Your task to perform on an android device: turn notification dots on Image 0: 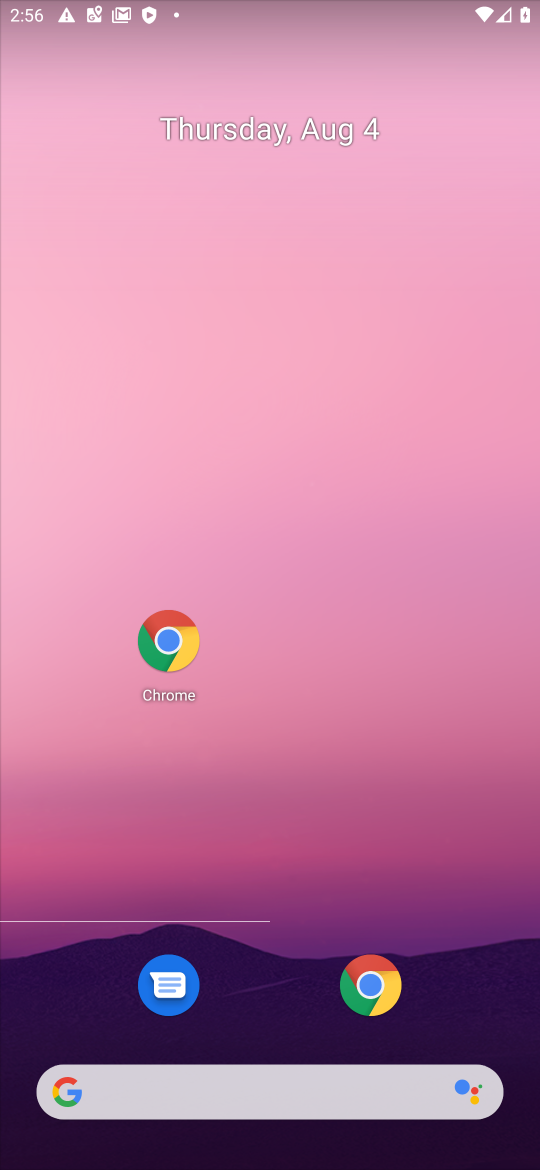
Step 0: drag from (344, 2) to (496, 487)
Your task to perform on an android device: turn notification dots on Image 1: 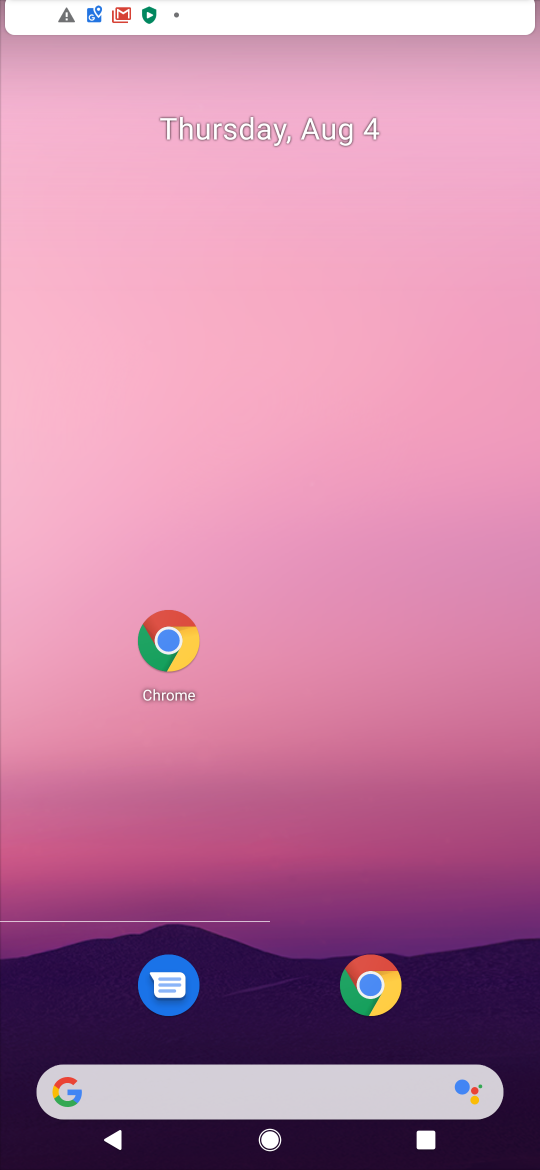
Step 1: drag from (419, 999) to (167, 197)
Your task to perform on an android device: turn notification dots on Image 2: 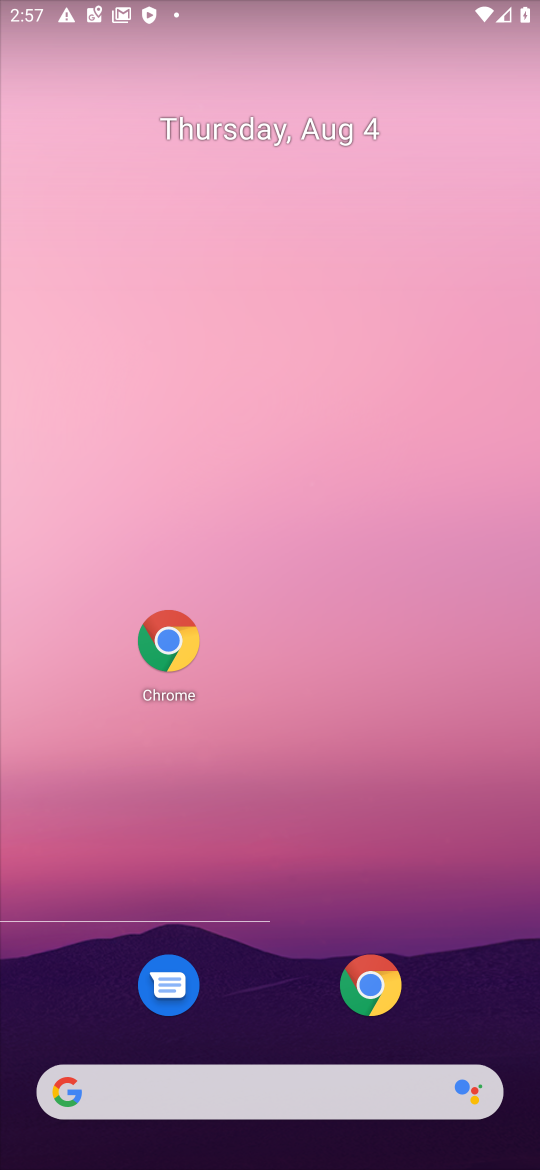
Step 2: drag from (274, 1050) to (214, 224)
Your task to perform on an android device: turn notification dots on Image 3: 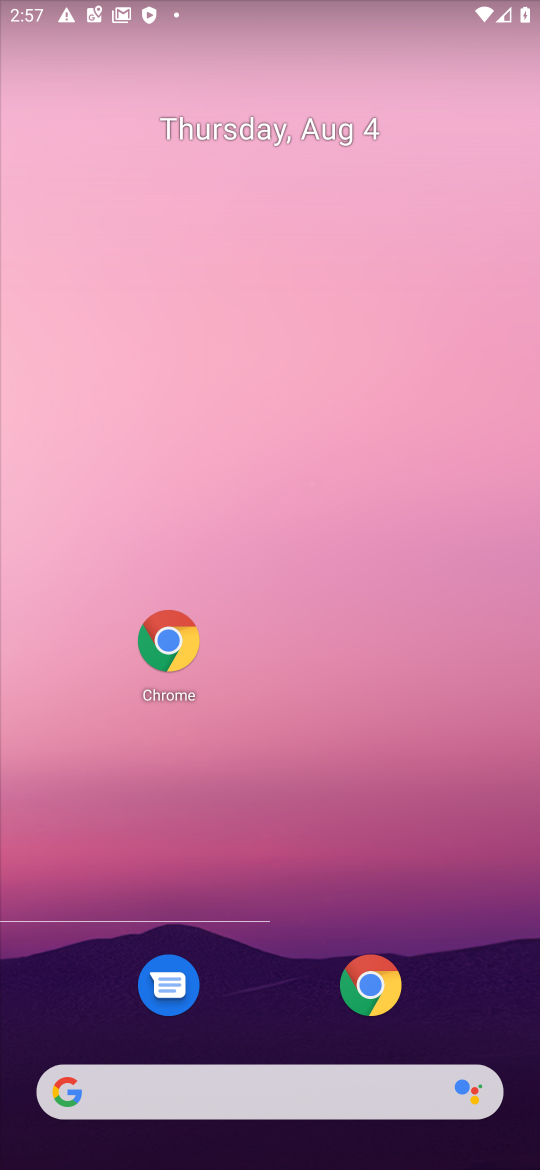
Step 3: drag from (213, 763) to (243, 343)
Your task to perform on an android device: turn notification dots on Image 4: 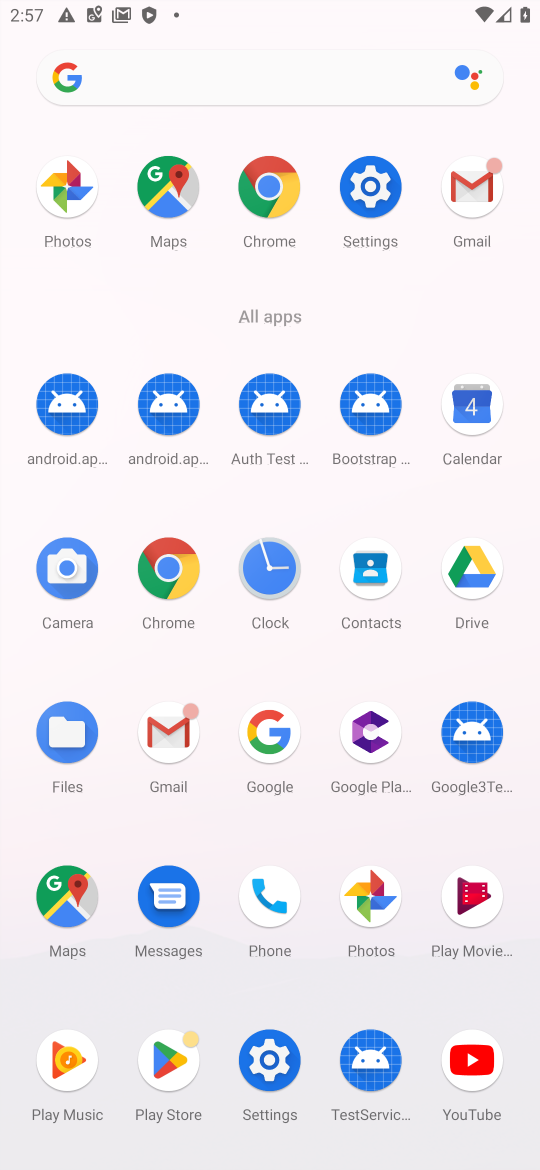
Step 4: click (355, 194)
Your task to perform on an android device: turn notification dots on Image 5: 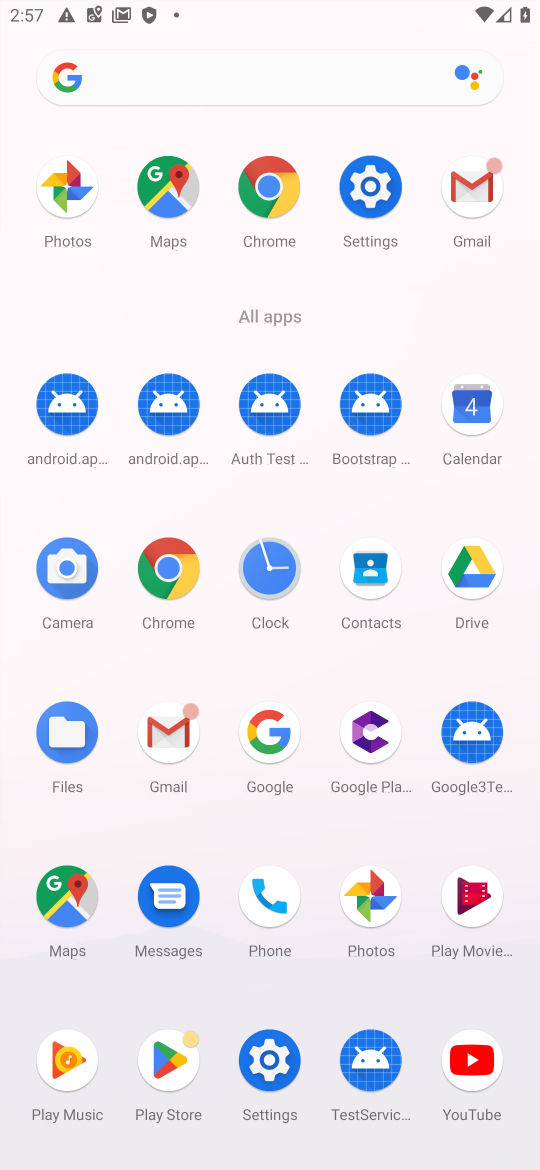
Step 5: click (354, 199)
Your task to perform on an android device: turn notification dots on Image 6: 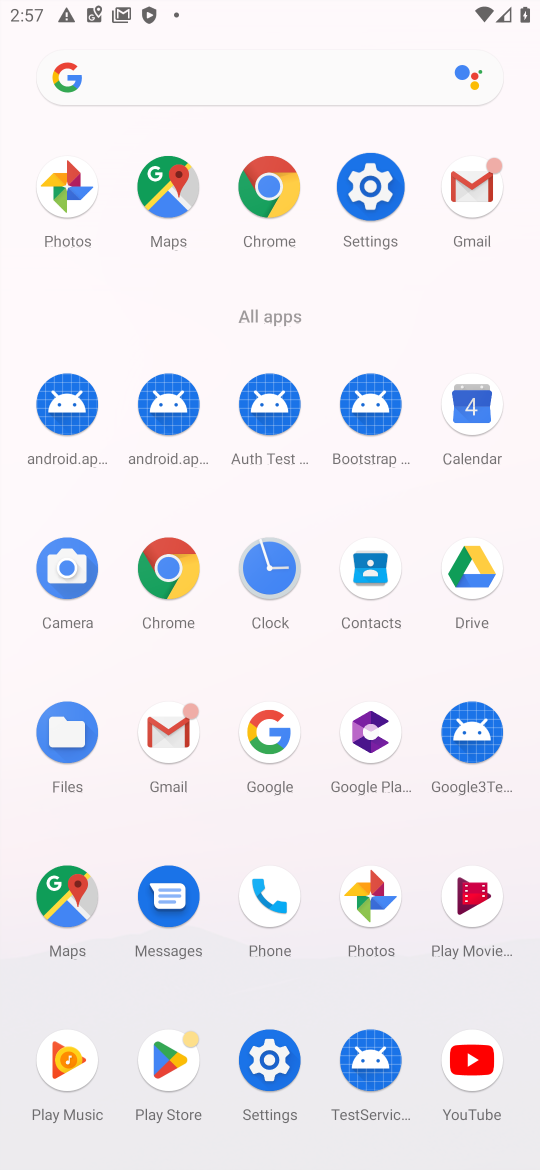
Step 6: click (354, 199)
Your task to perform on an android device: turn notification dots on Image 7: 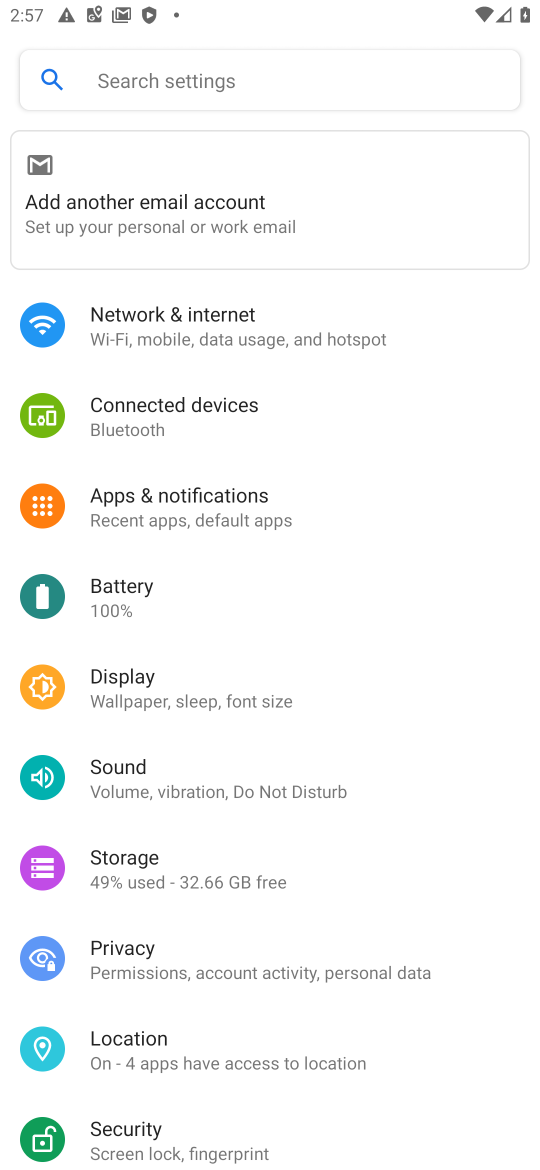
Step 7: click (154, 505)
Your task to perform on an android device: turn notification dots on Image 8: 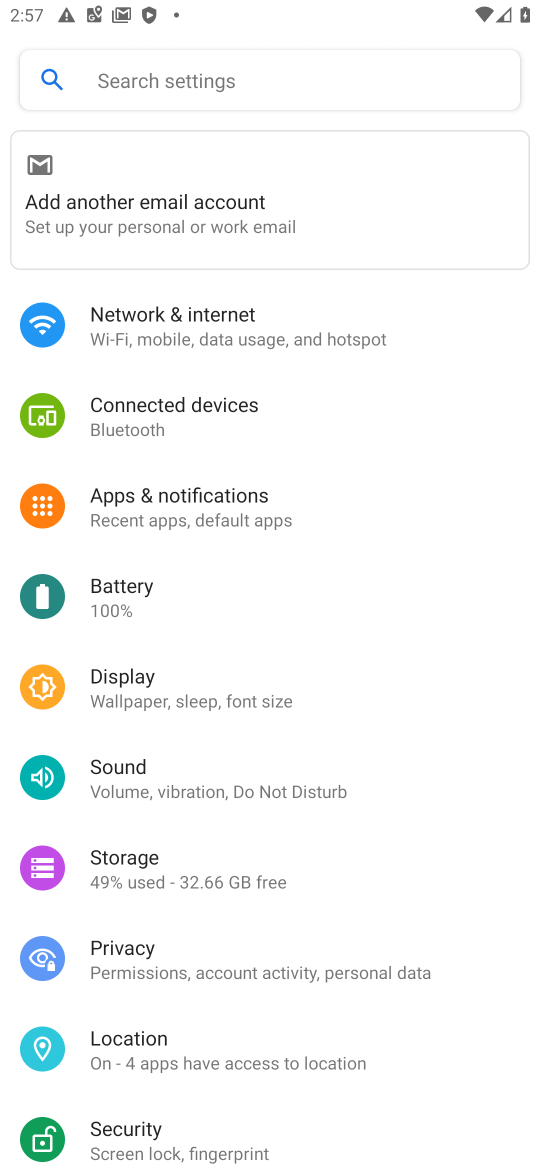
Step 8: click (153, 504)
Your task to perform on an android device: turn notification dots on Image 9: 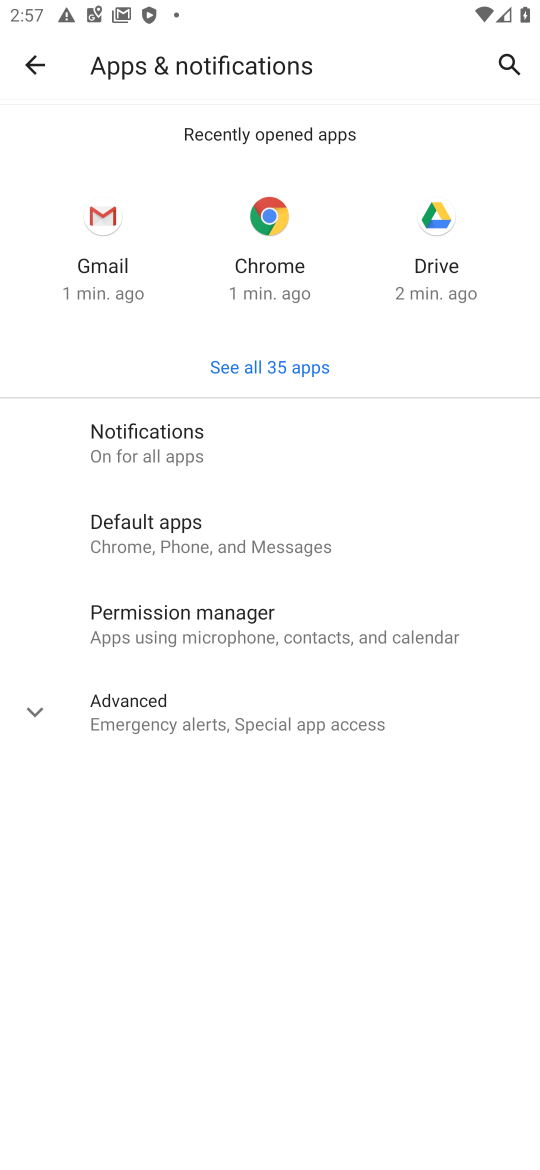
Step 9: click (149, 444)
Your task to perform on an android device: turn notification dots on Image 10: 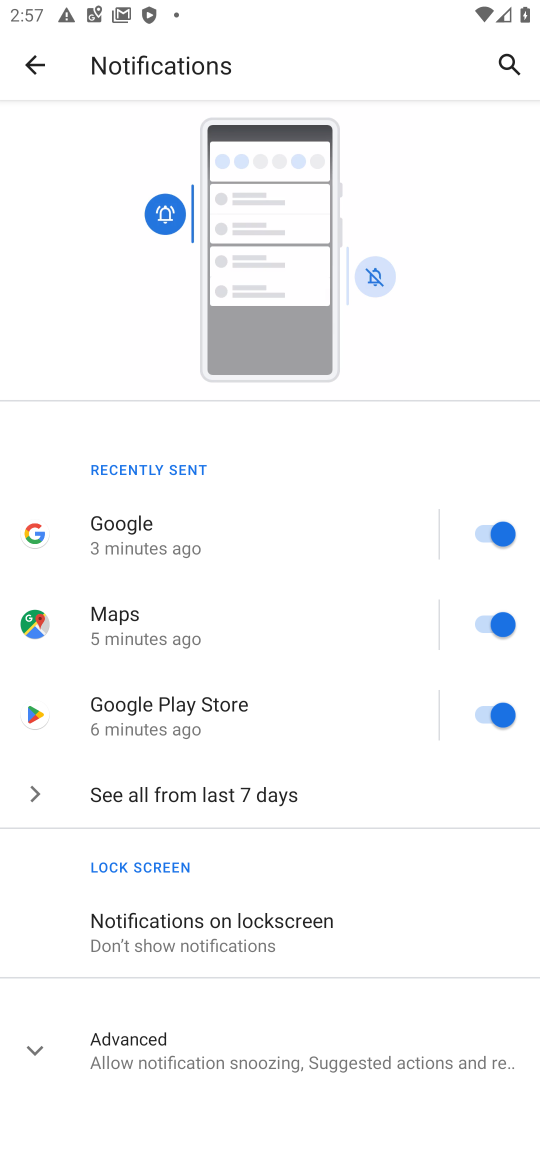
Step 10: click (144, 1046)
Your task to perform on an android device: turn notification dots on Image 11: 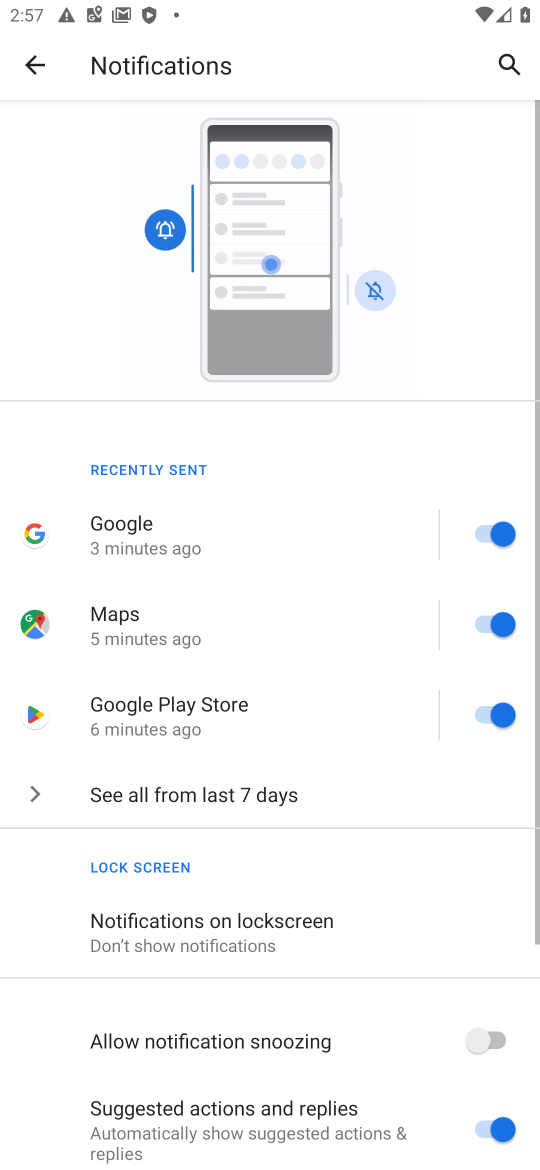
Step 11: drag from (300, 945) to (255, 635)
Your task to perform on an android device: turn notification dots on Image 12: 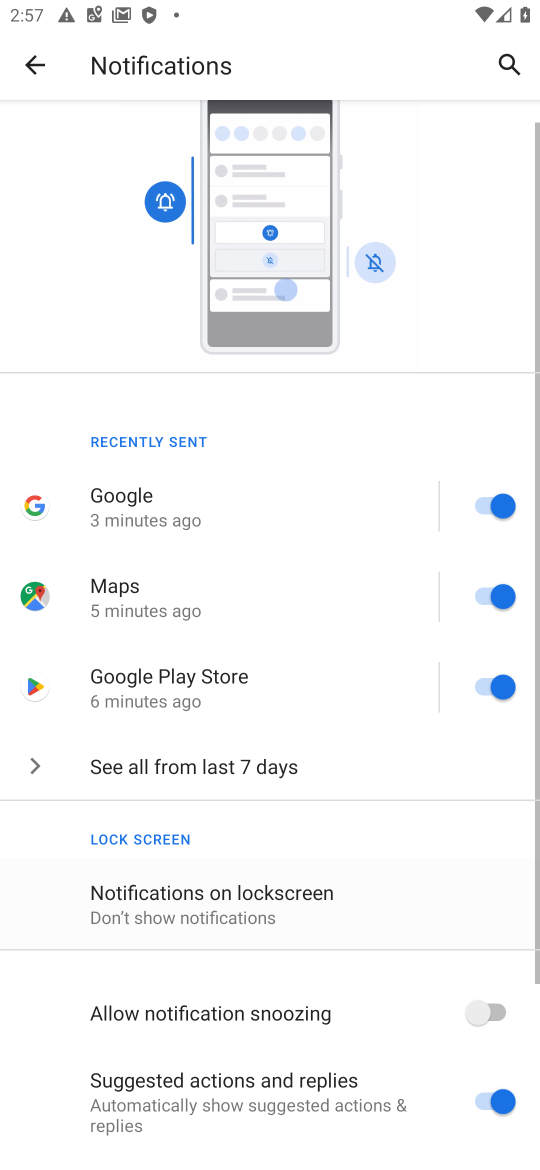
Step 12: click (209, 595)
Your task to perform on an android device: turn notification dots on Image 13: 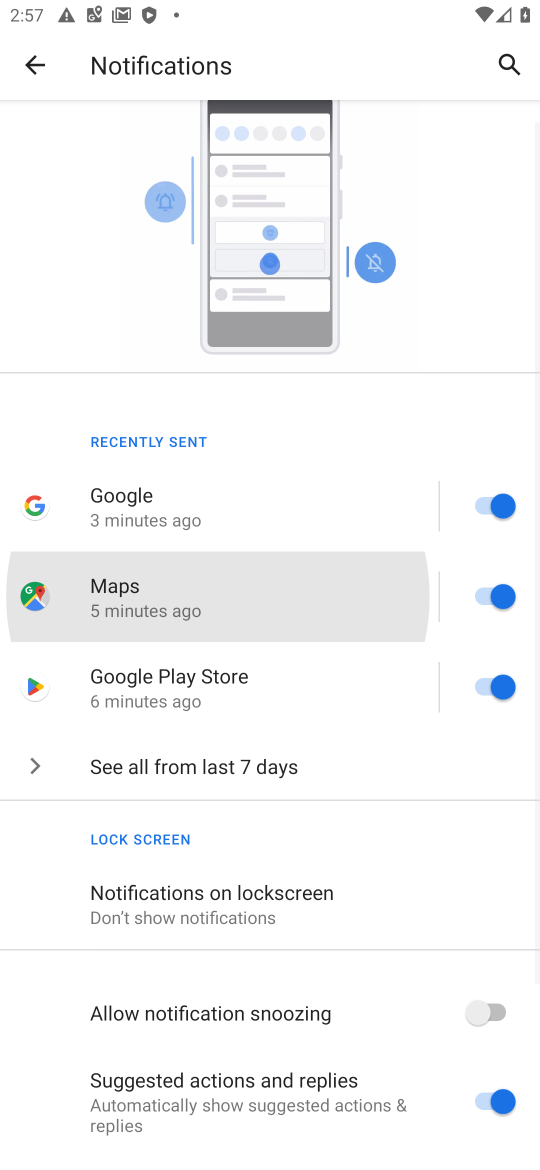
Step 13: drag from (303, 873) to (255, 635)
Your task to perform on an android device: turn notification dots on Image 14: 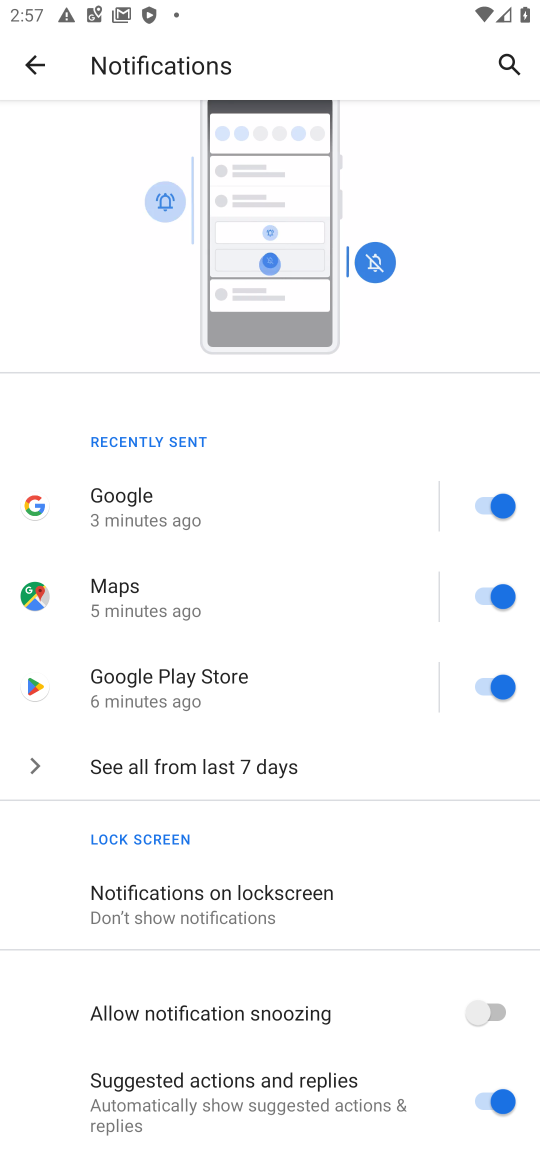
Step 14: drag from (302, 873) to (302, 611)
Your task to perform on an android device: turn notification dots on Image 15: 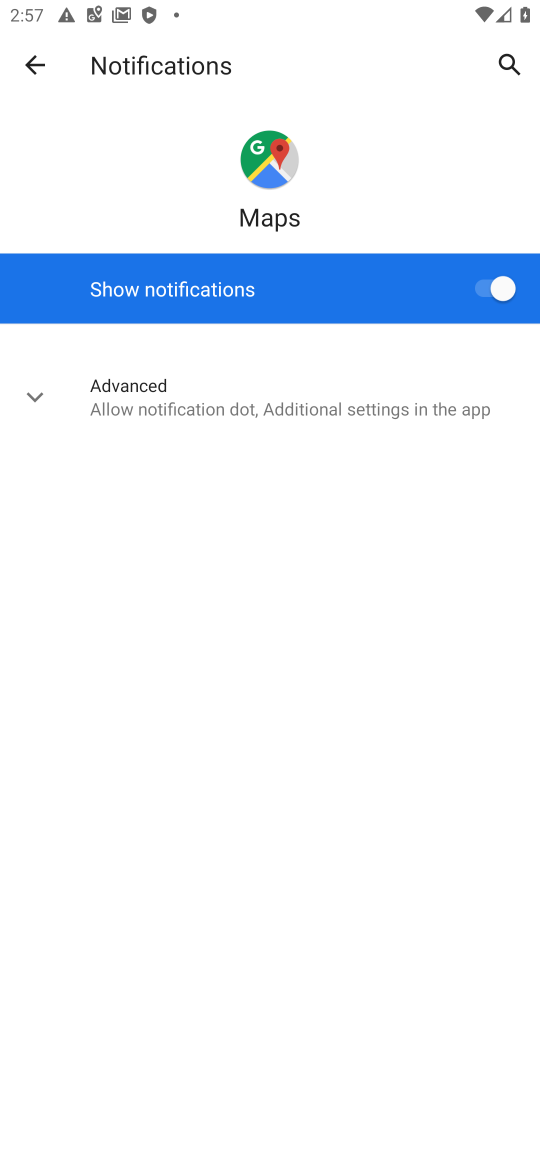
Step 15: drag from (301, 1019) to (260, 770)
Your task to perform on an android device: turn notification dots on Image 16: 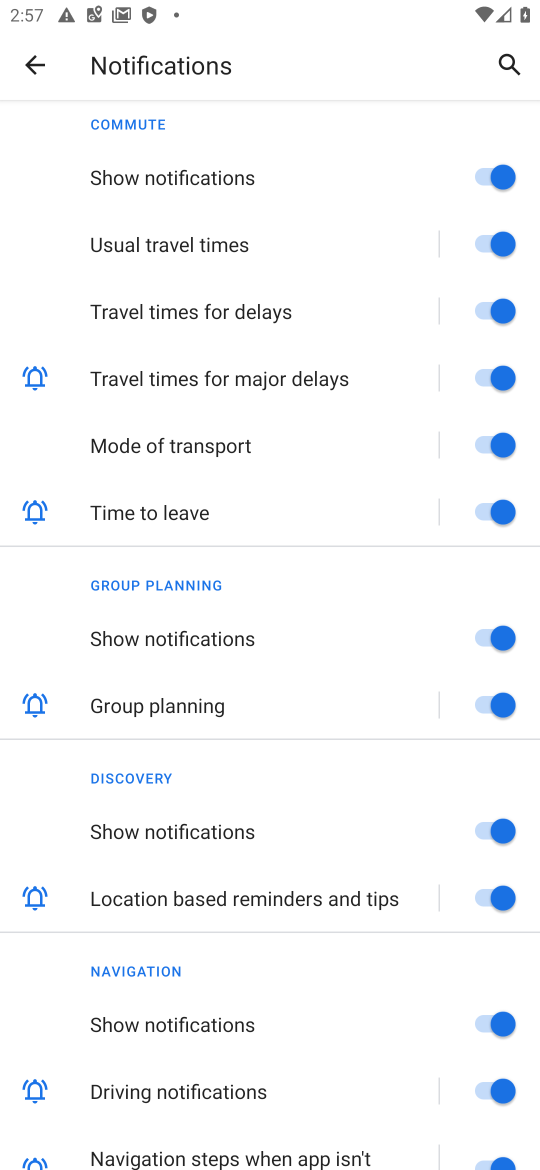
Step 16: click (32, 66)
Your task to perform on an android device: turn notification dots on Image 17: 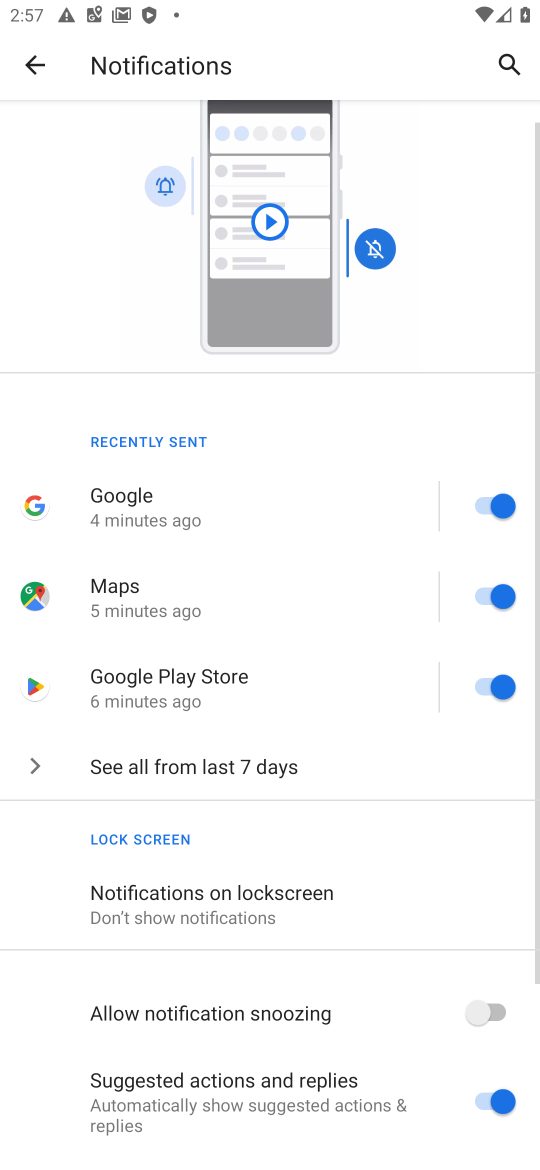
Step 17: drag from (319, 964) to (211, 595)
Your task to perform on an android device: turn notification dots on Image 18: 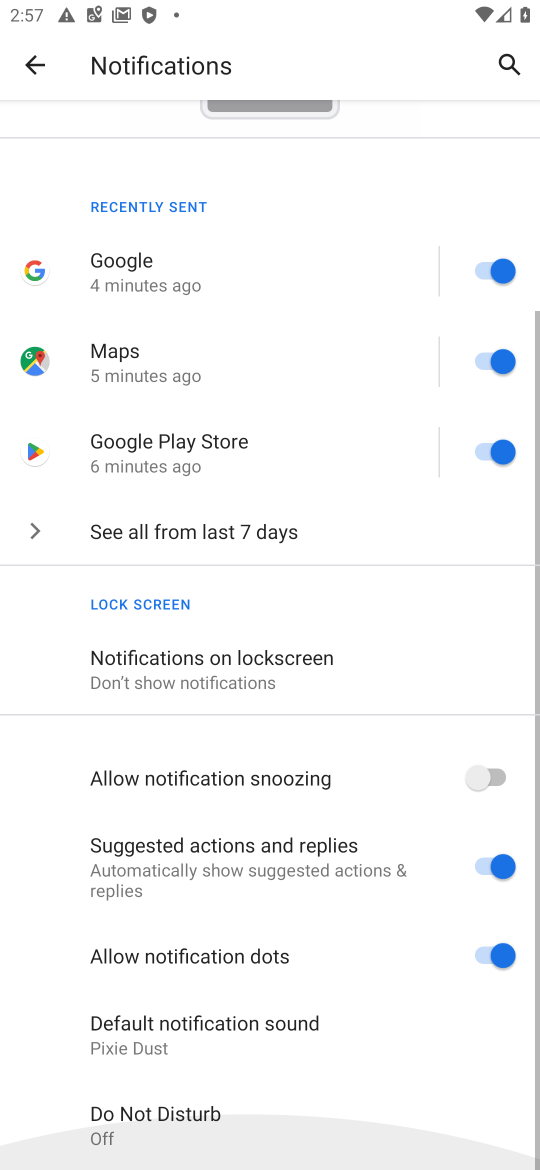
Step 18: drag from (353, 807) to (357, 595)
Your task to perform on an android device: turn notification dots on Image 19: 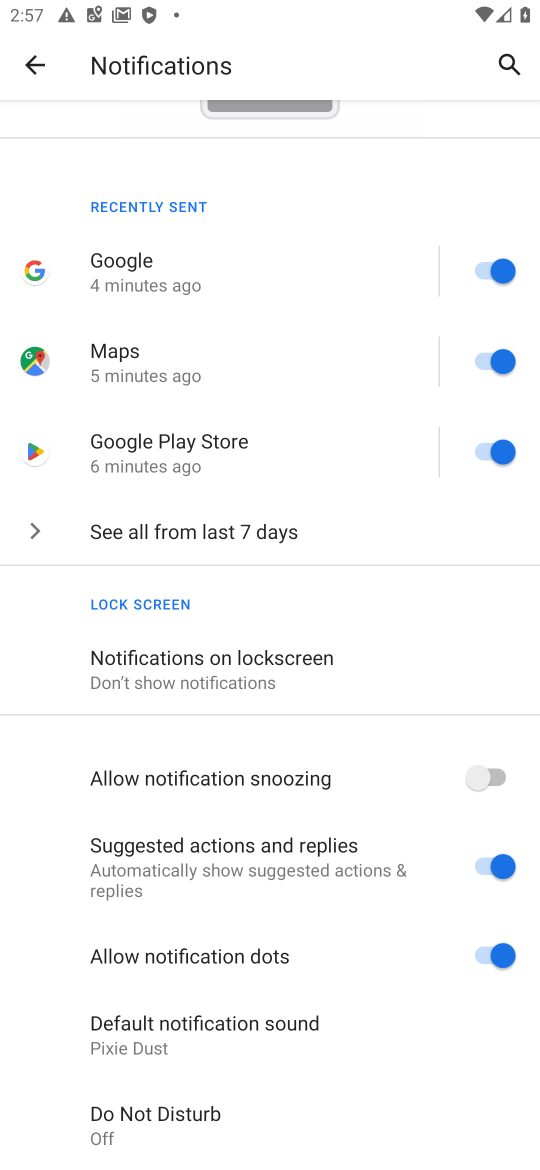
Step 19: click (501, 948)
Your task to perform on an android device: turn notification dots on Image 20: 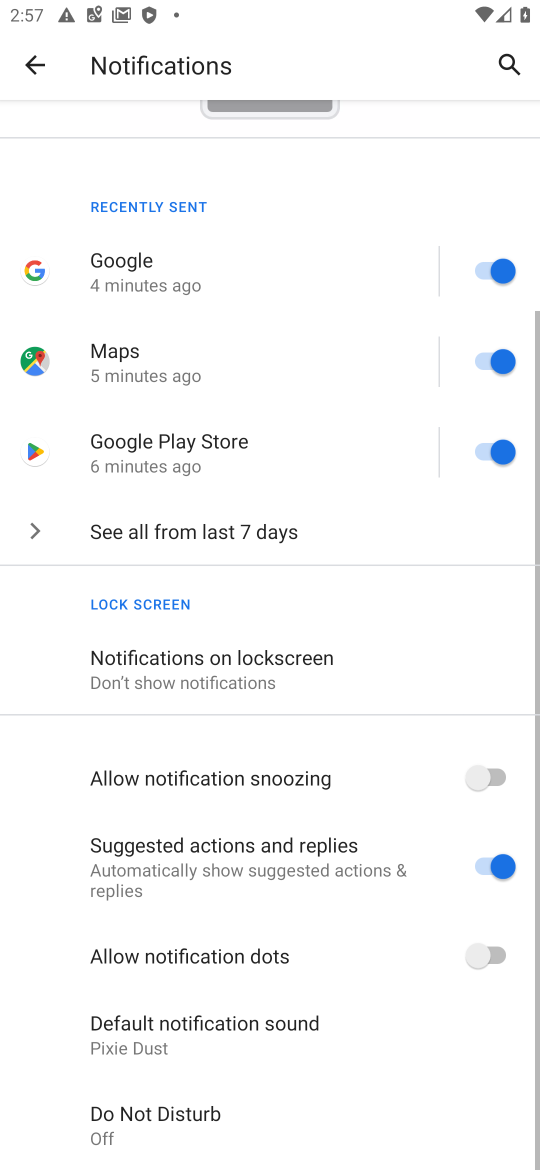
Step 20: click (501, 948)
Your task to perform on an android device: turn notification dots on Image 21: 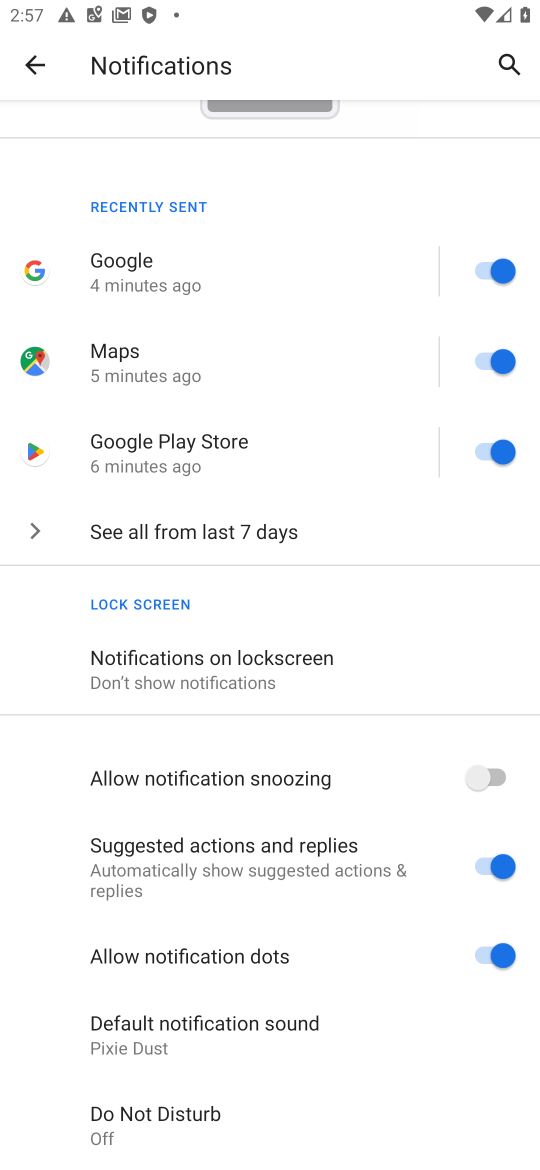
Step 21: task complete